Your task to perform on an android device: delete browsing data in the chrome app Image 0: 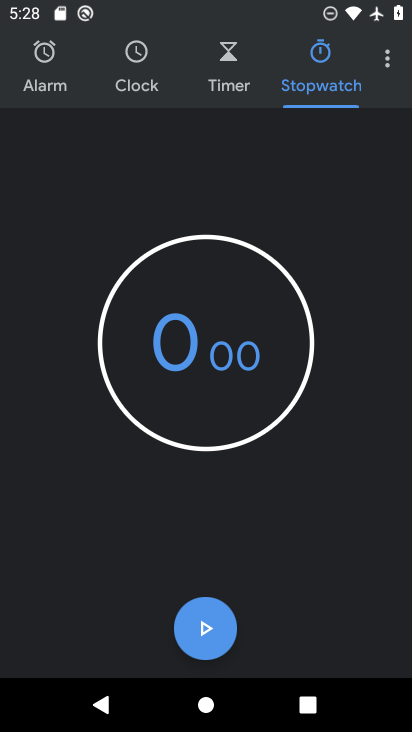
Step 0: press home button
Your task to perform on an android device: delete browsing data in the chrome app Image 1: 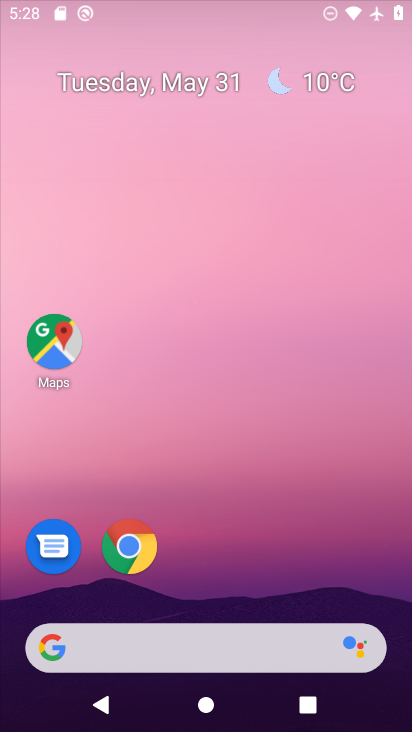
Step 1: drag from (258, 530) to (169, 62)
Your task to perform on an android device: delete browsing data in the chrome app Image 2: 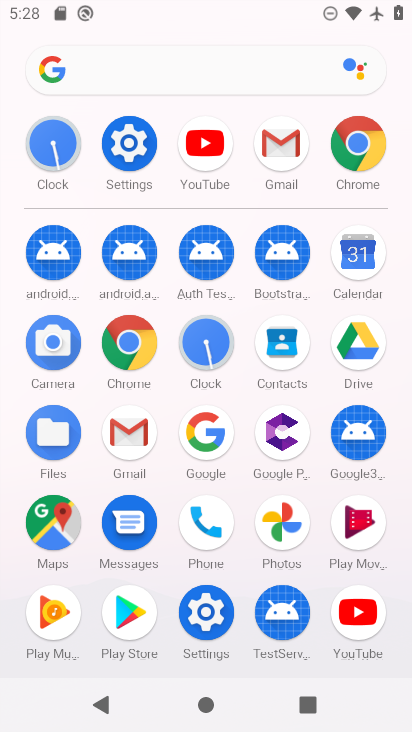
Step 2: click (362, 142)
Your task to perform on an android device: delete browsing data in the chrome app Image 3: 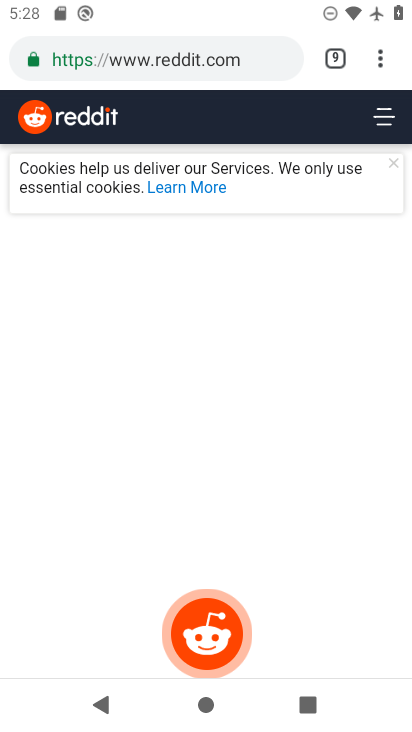
Step 3: click (383, 49)
Your task to perform on an android device: delete browsing data in the chrome app Image 4: 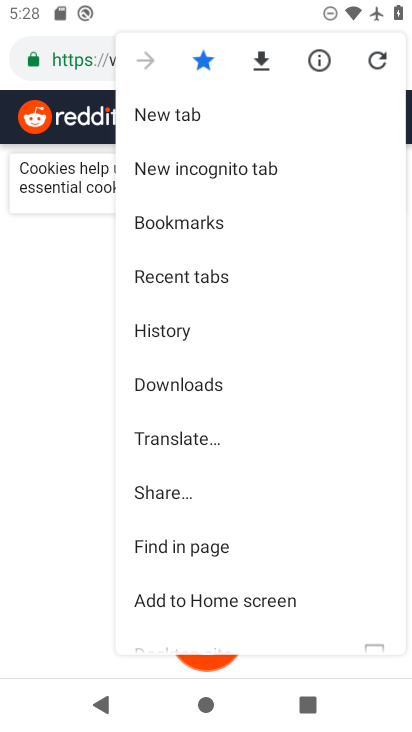
Step 4: click (185, 316)
Your task to perform on an android device: delete browsing data in the chrome app Image 5: 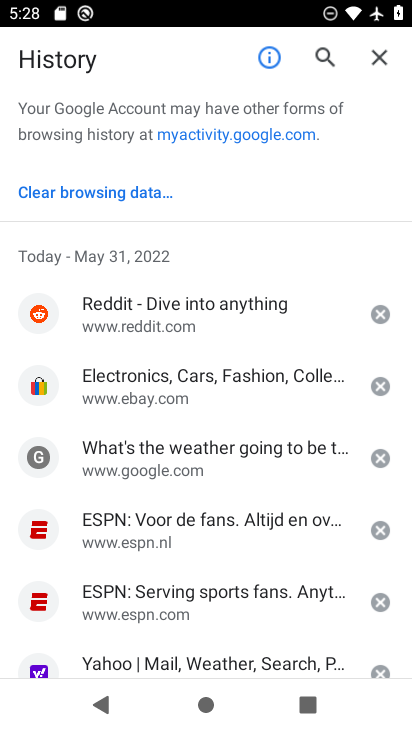
Step 5: click (95, 109)
Your task to perform on an android device: delete browsing data in the chrome app Image 6: 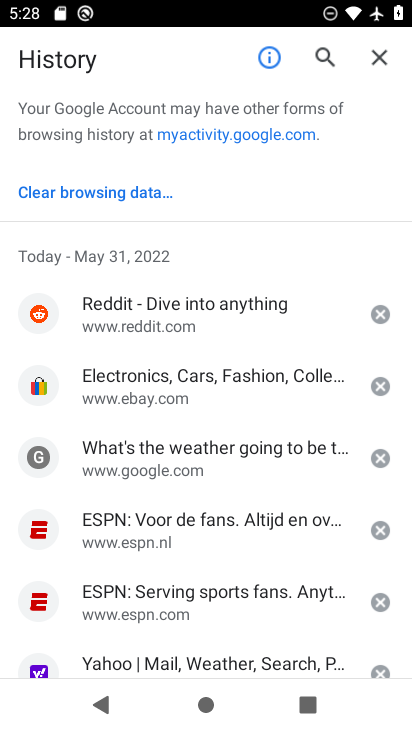
Step 6: click (107, 195)
Your task to perform on an android device: delete browsing data in the chrome app Image 7: 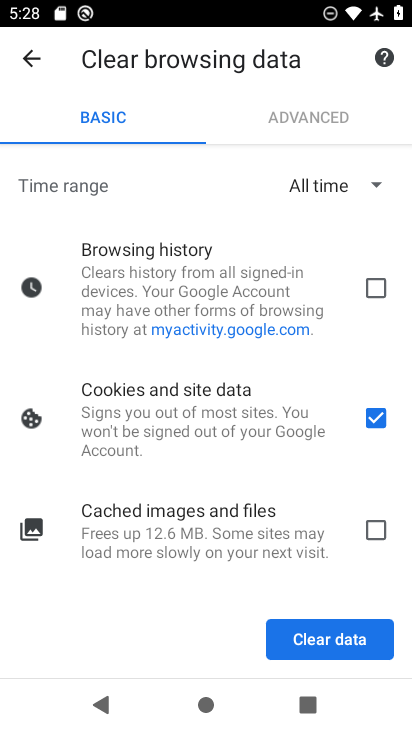
Step 7: click (364, 633)
Your task to perform on an android device: delete browsing data in the chrome app Image 8: 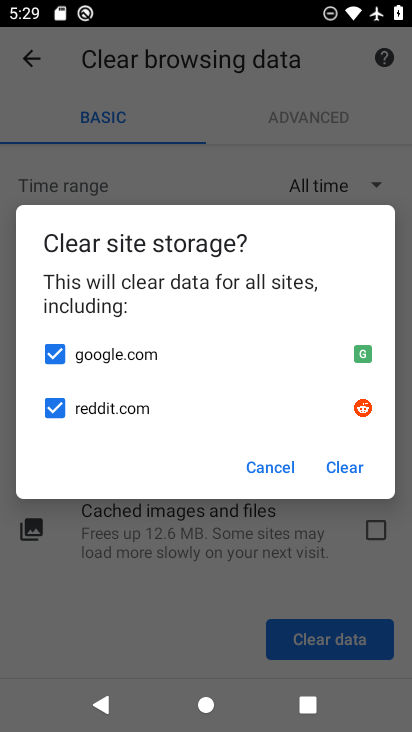
Step 8: click (344, 454)
Your task to perform on an android device: delete browsing data in the chrome app Image 9: 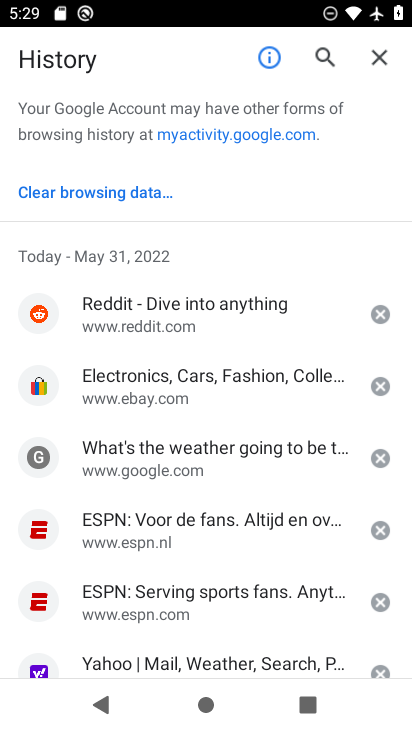
Step 9: task complete